Your task to perform on an android device: Set the phone to "Do not disturb". Image 0: 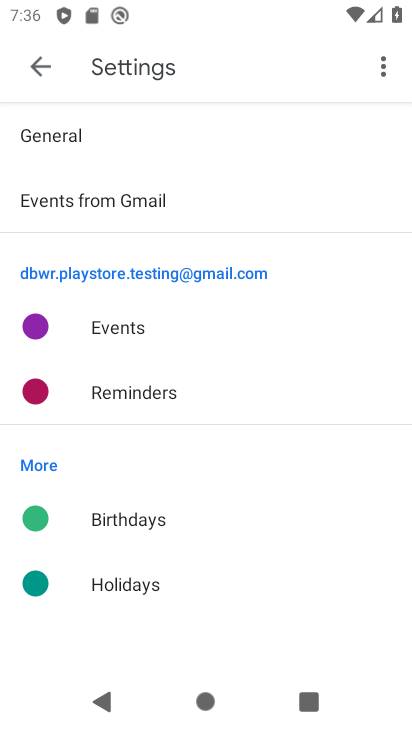
Step 0: press home button
Your task to perform on an android device: Set the phone to "Do not disturb". Image 1: 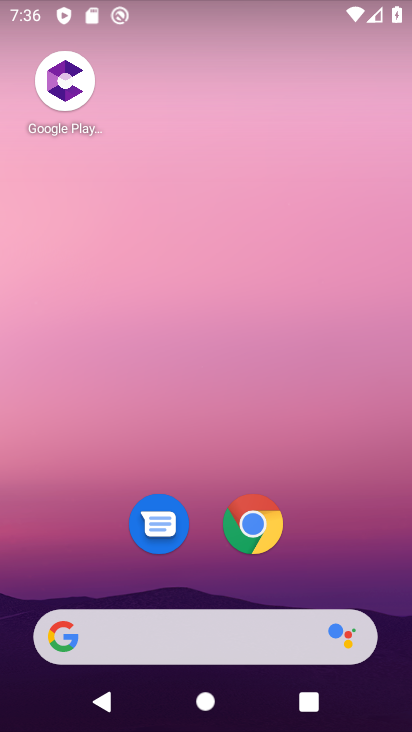
Step 1: drag from (208, 262) to (263, 53)
Your task to perform on an android device: Set the phone to "Do not disturb". Image 2: 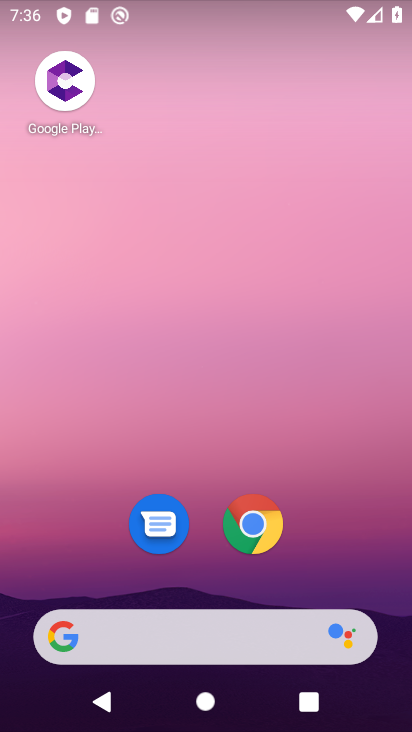
Step 2: drag from (311, 519) to (368, 44)
Your task to perform on an android device: Set the phone to "Do not disturb". Image 3: 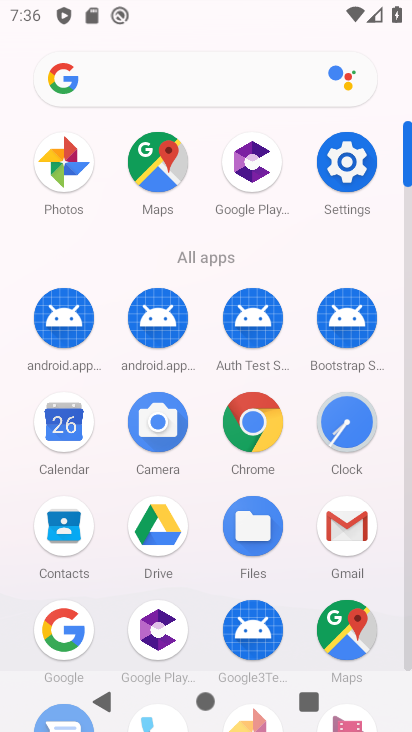
Step 3: click (339, 155)
Your task to perform on an android device: Set the phone to "Do not disturb". Image 4: 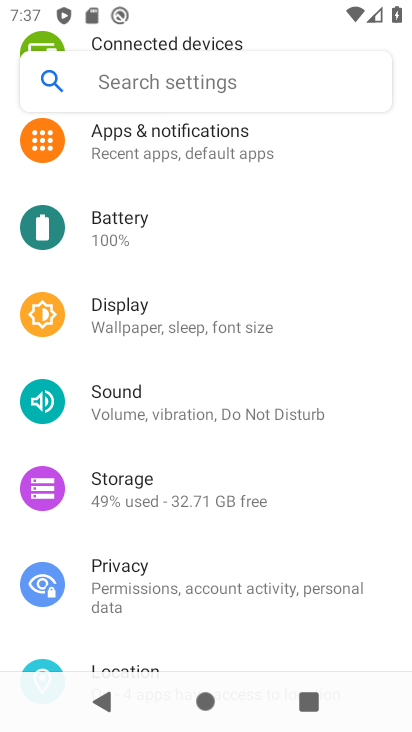
Step 4: click (190, 412)
Your task to perform on an android device: Set the phone to "Do not disturb". Image 5: 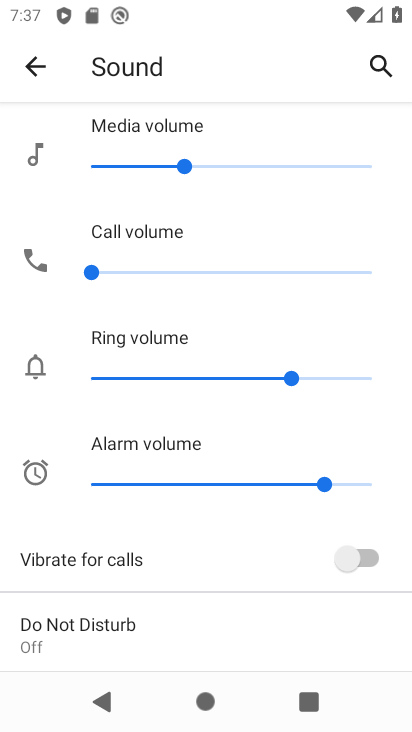
Step 5: click (96, 632)
Your task to perform on an android device: Set the phone to "Do not disturb". Image 6: 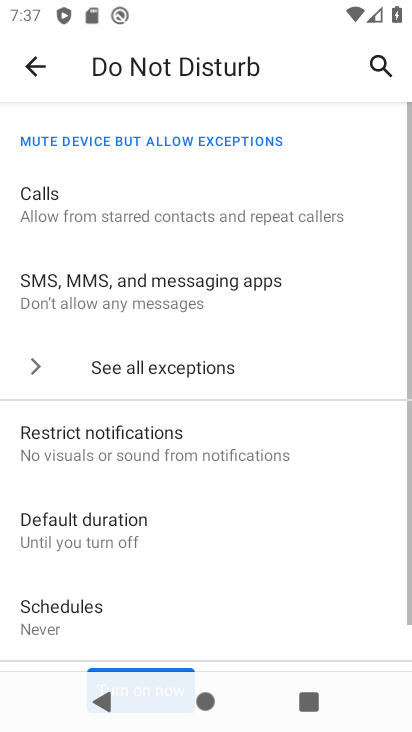
Step 6: drag from (218, 524) to (232, 371)
Your task to perform on an android device: Set the phone to "Do not disturb". Image 7: 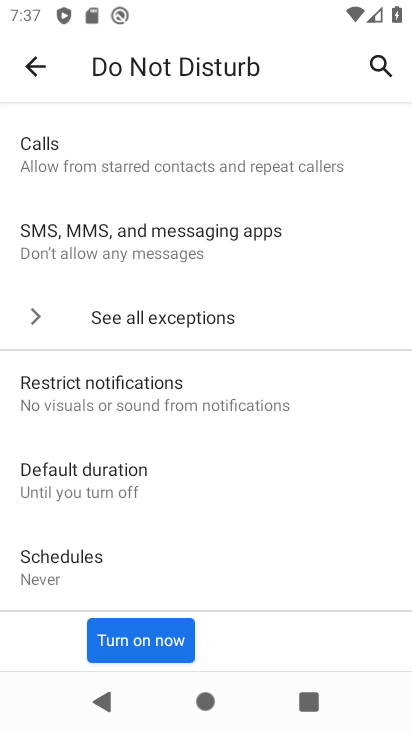
Step 7: click (162, 637)
Your task to perform on an android device: Set the phone to "Do not disturb". Image 8: 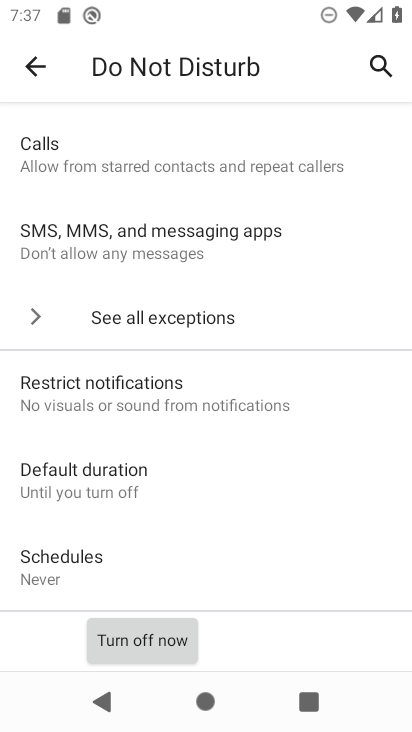
Step 8: click (38, 56)
Your task to perform on an android device: Set the phone to "Do not disturb". Image 9: 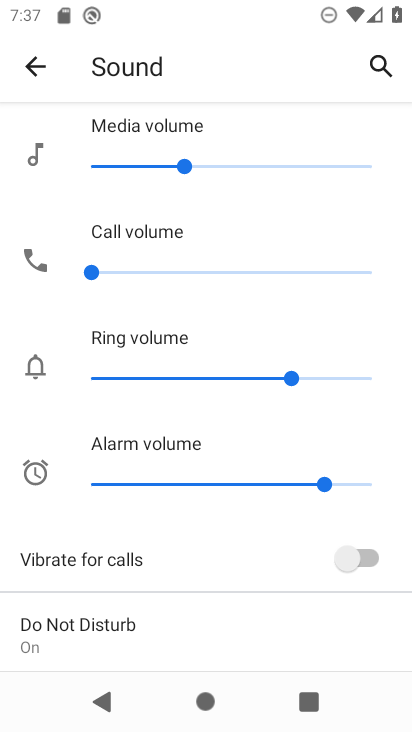
Step 9: click (32, 63)
Your task to perform on an android device: Set the phone to "Do not disturb". Image 10: 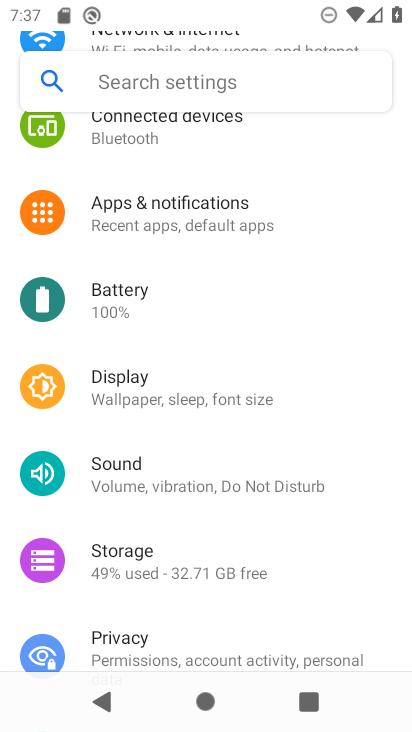
Step 10: task complete